Your task to perform on an android device: What is the recent news? Image 0: 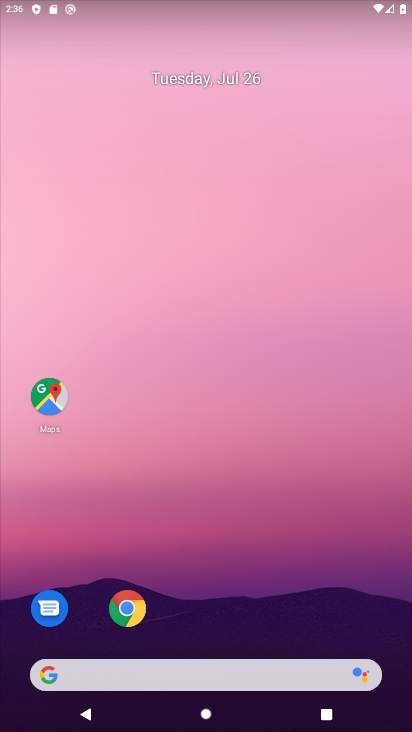
Step 0: click (173, 676)
Your task to perform on an android device: What is the recent news? Image 1: 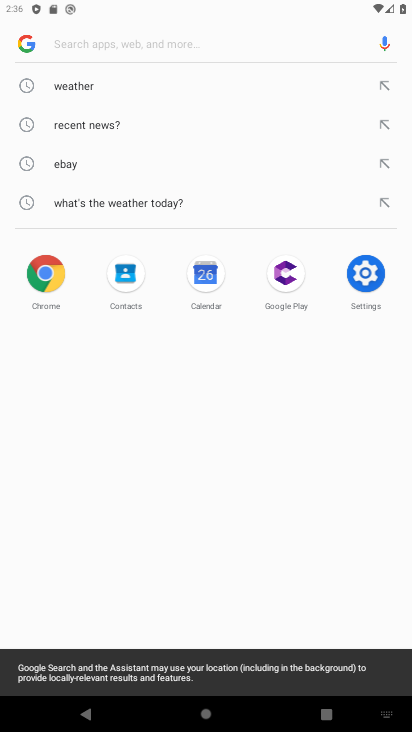
Step 1: click (85, 125)
Your task to perform on an android device: What is the recent news? Image 2: 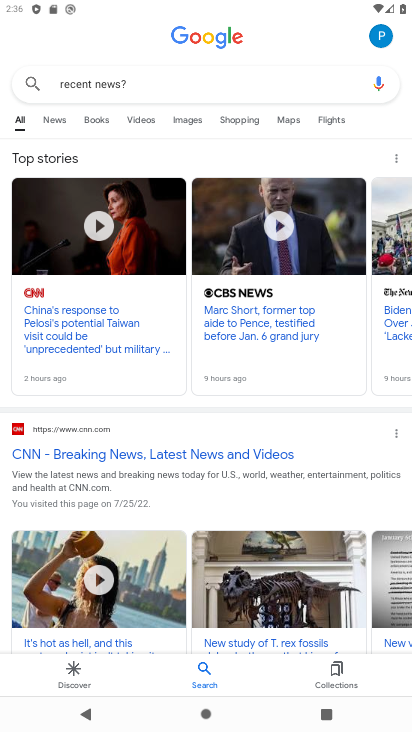
Step 2: task complete